Your task to perform on an android device: turn pop-ups on in chrome Image 0: 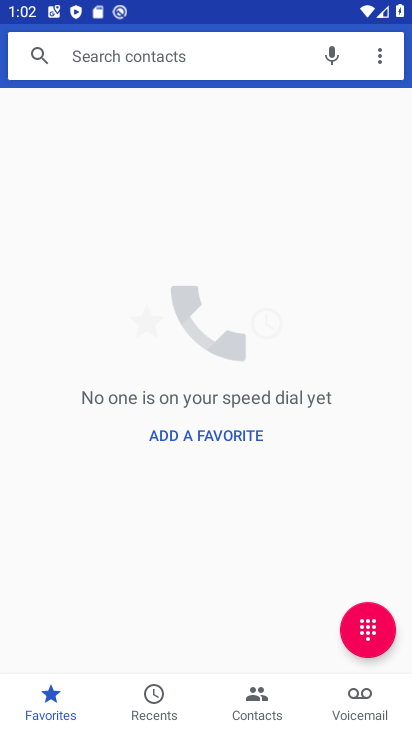
Step 0: task complete